Your task to perform on an android device: move an email to a new category in the gmail app Image 0: 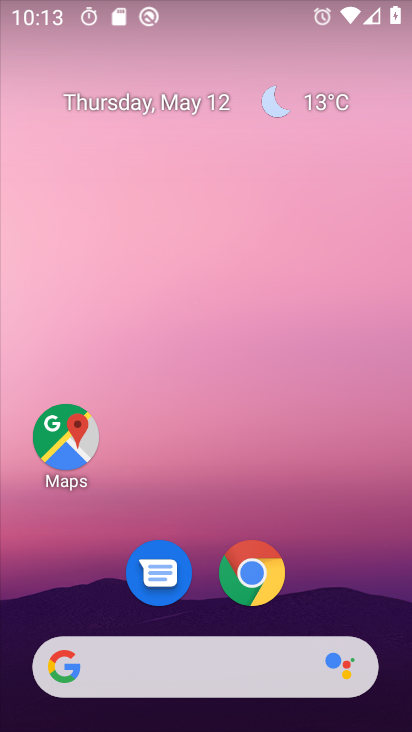
Step 0: drag from (392, 684) to (359, 335)
Your task to perform on an android device: move an email to a new category in the gmail app Image 1: 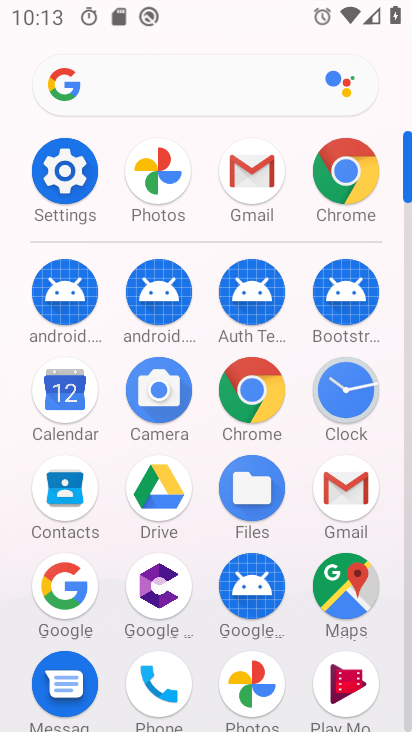
Step 1: click (339, 480)
Your task to perform on an android device: move an email to a new category in the gmail app Image 2: 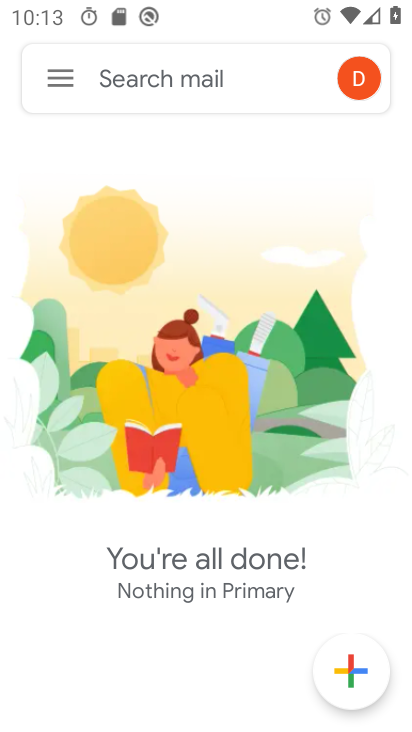
Step 2: click (59, 71)
Your task to perform on an android device: move an email to a new category in the gmail app Image 3: 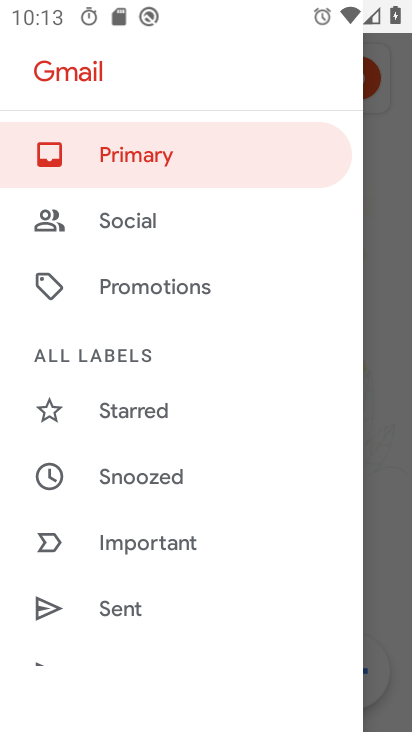
Step 3: click (124, 155)
Your task to perform on an android device: move an email to a new category in the gmail app Image 4: 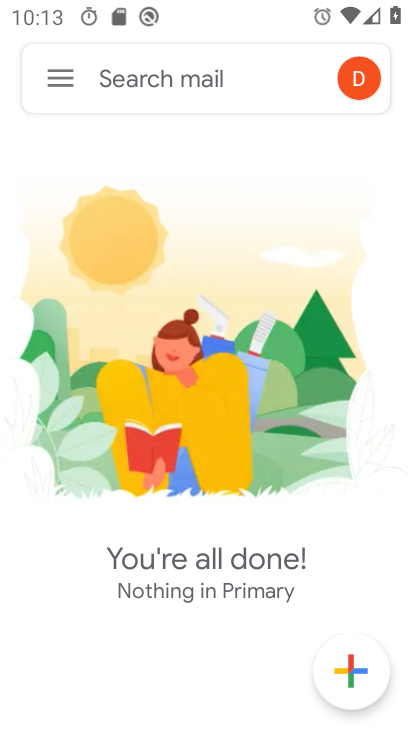
Step 4: task complete